Your task to perform on an android device: Go to Amazon Image 0: 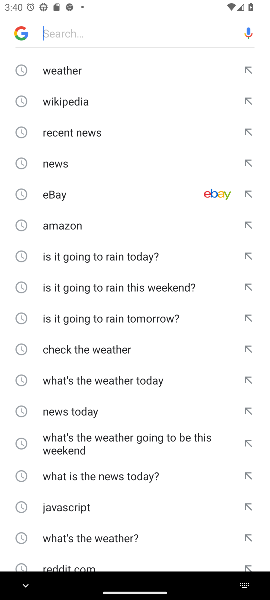
Step 0: click (65, 221)
Your task to perform on an android device: Go to Amazon Image 1: 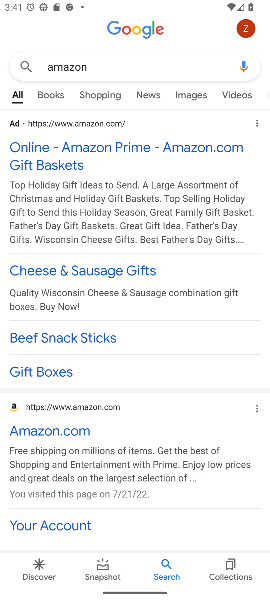
Step 1: click (63, 146)
Your task to perform on an android device: Go to Amazon Image 2: 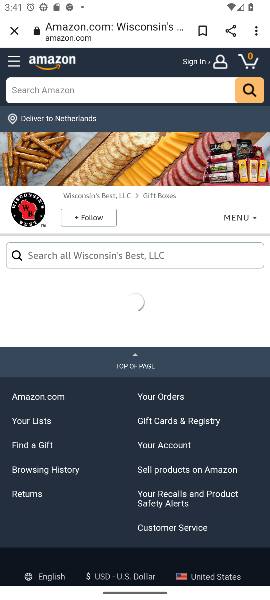
Step 2: task complete